Your task to perform on an android device: Search for cool wooden wall art on Etsy. Image 0: 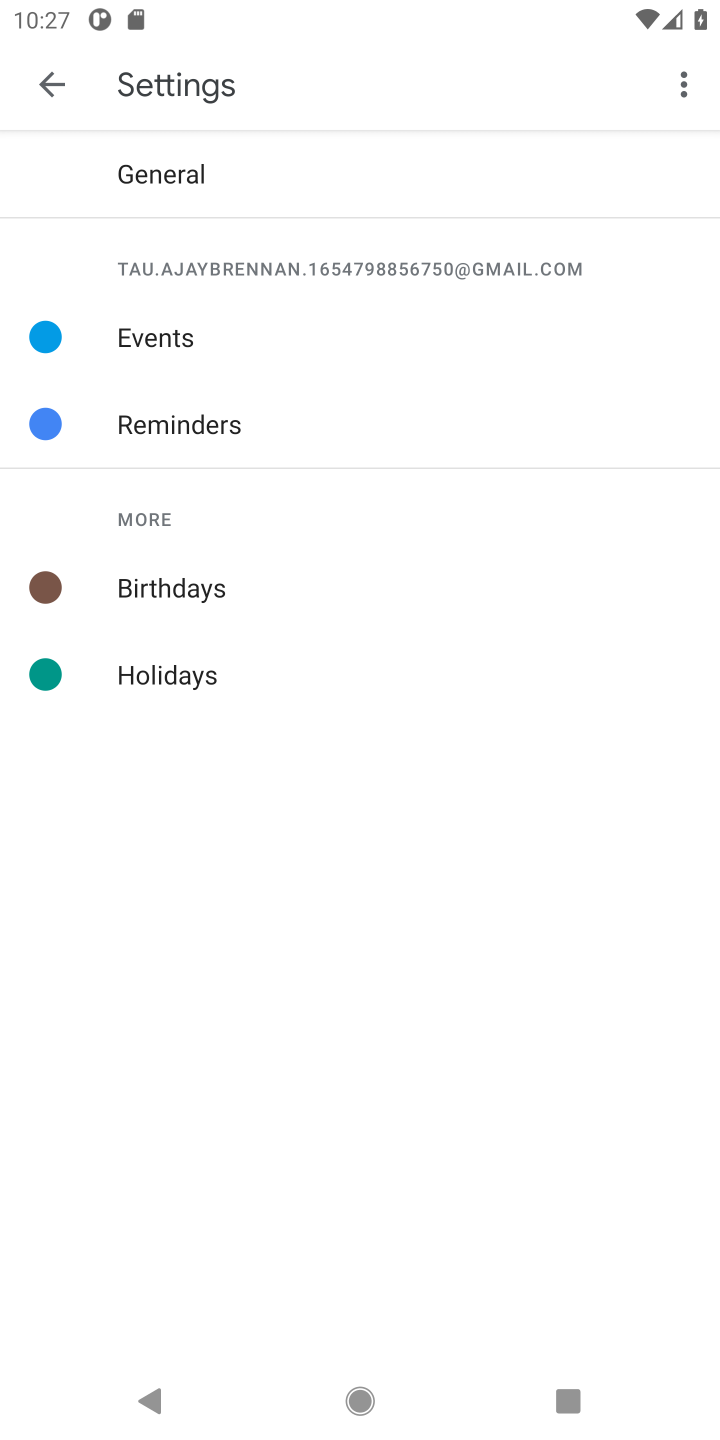
Step 0: press home button
Your task to perform on an android device: Search for cool wooden wall art on Etsy. Image 1: 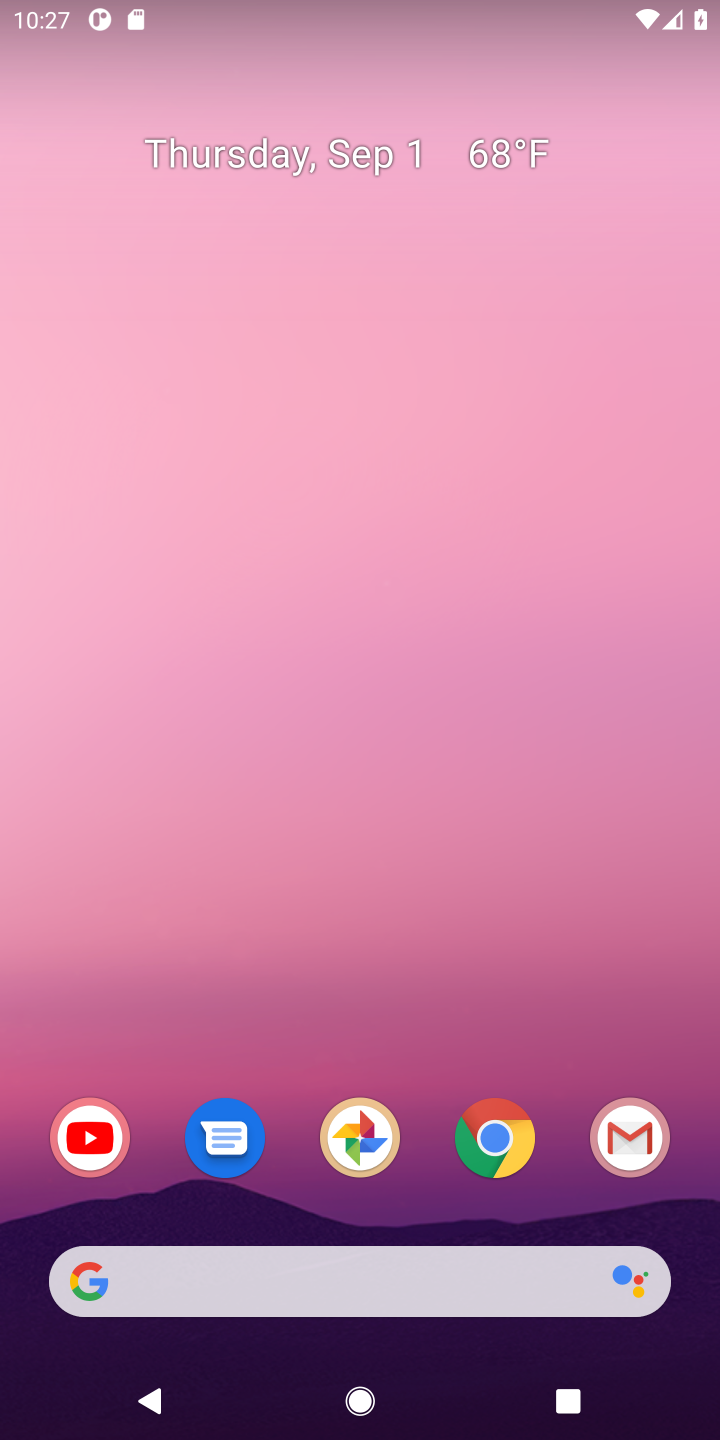
Step 1: click (294, 1293)
Your task to perform on an android device: Search for cool wooden wall art on Etsy. Image 2: 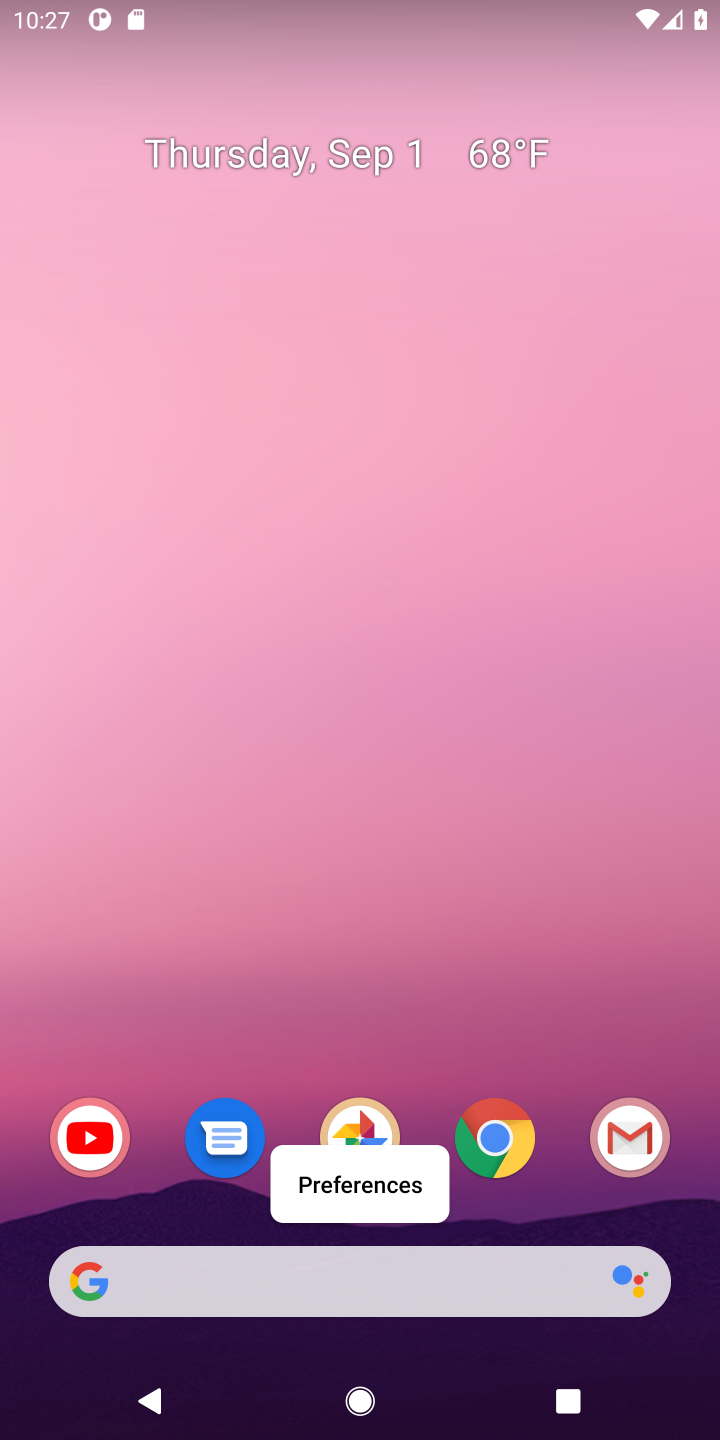
Step 2: click (294, 1293)
Your task to perform on an android device: Search for cool wooden wall art on Etsy. Image 3: 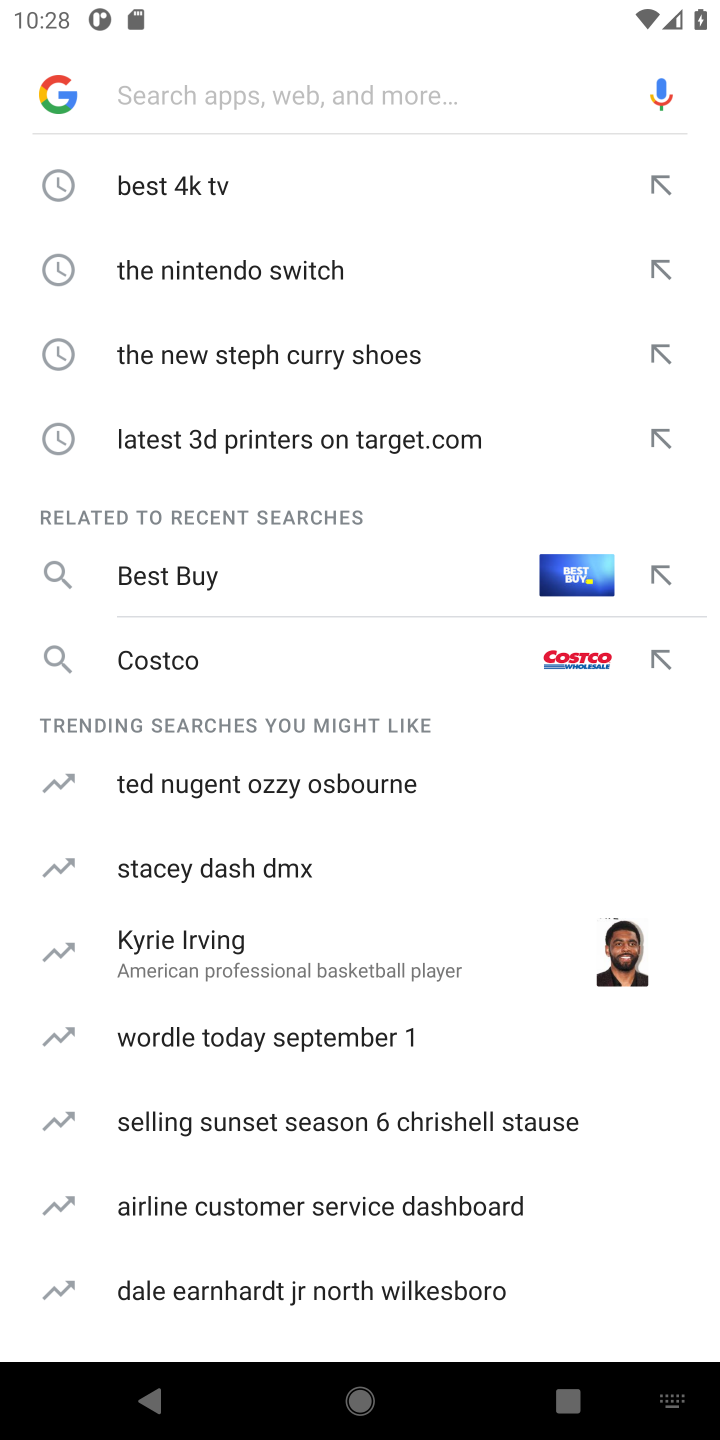
Step 3: type "cool wooden wall art on Etsy"
Your task to perform on an android device: Search for cool wooden wall art on Etsy. Image 4: 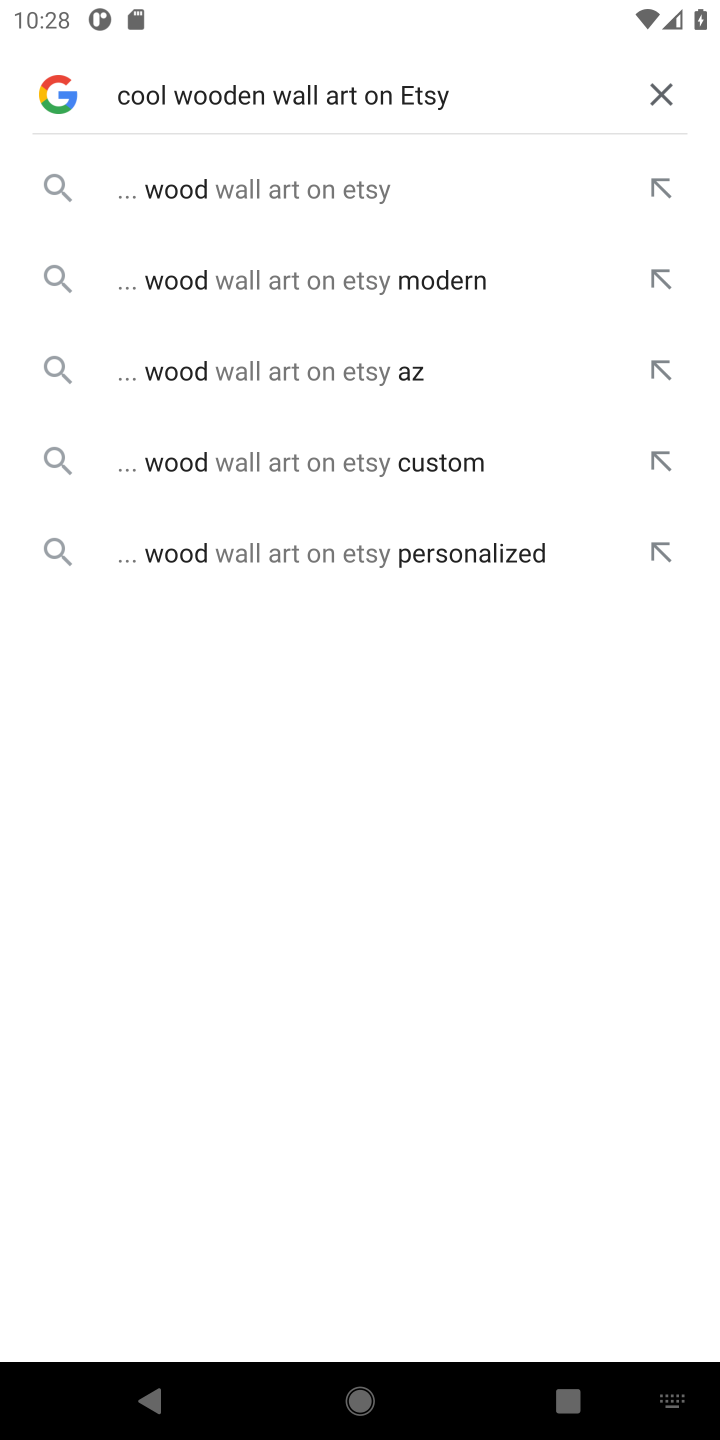
Step 4: click (235, 194)
Your task to perform on an android device: Search for cool wooden wall art on Etsy. Image 5: 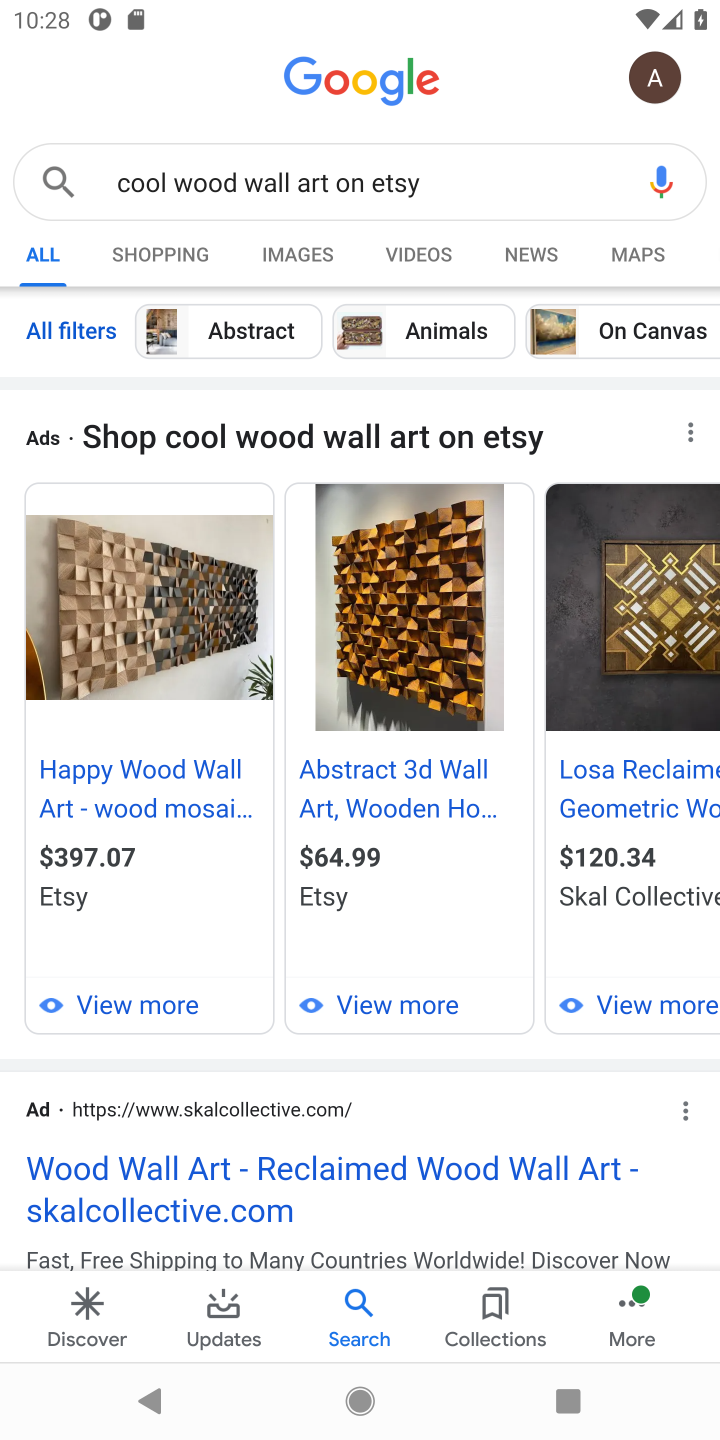
Step 5: task complete